Your task to perform on an android device: add a contact Image 0: 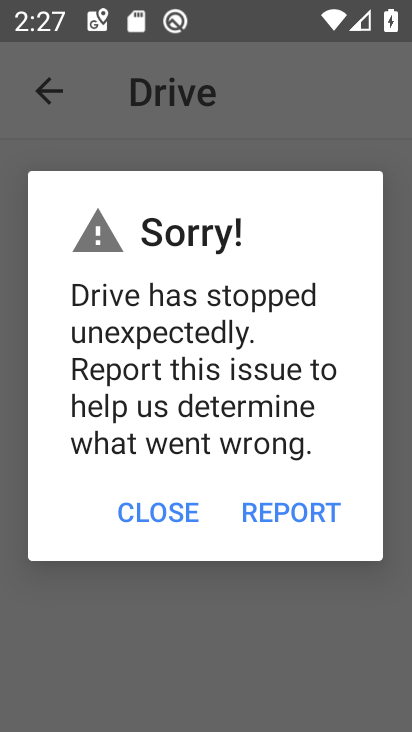
Step 0: press home button
Your task to perform on an android device: add a contact Image 1: 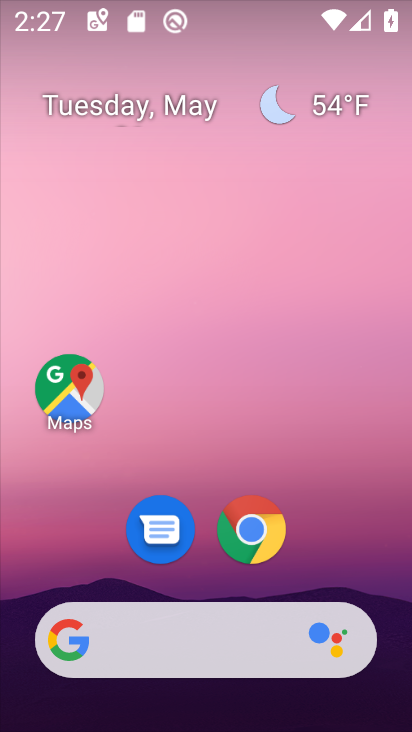
Step 1: drag from (308, 590) to (276, 110)
Your task to perform on an android device: add a contact Image 2: 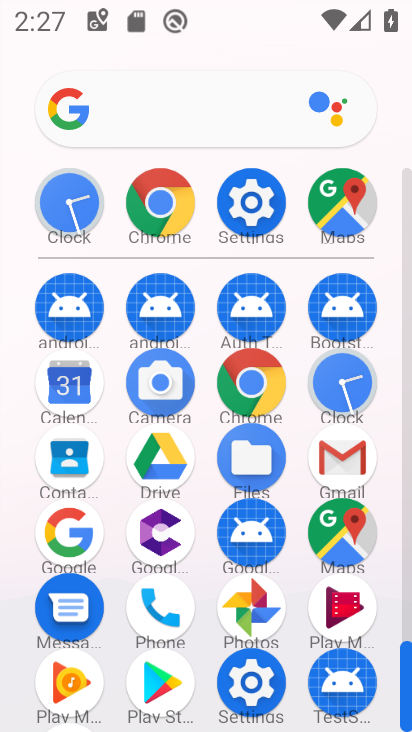
Step 2: click (152, 602)
Your task to perform on an android device: add a contact Image 3: 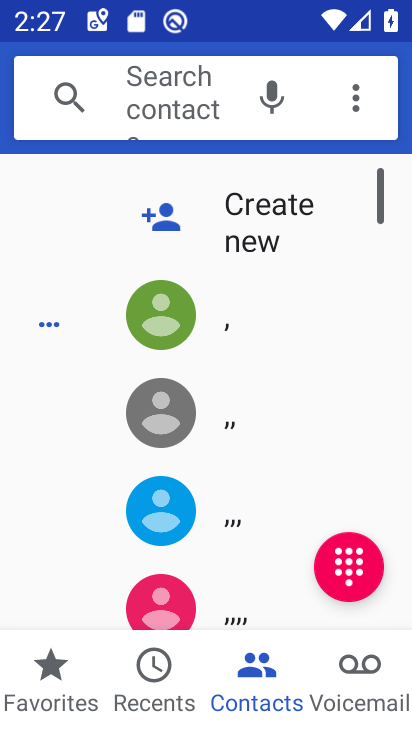
Step 3: click (187, 224)
Your task to perform on an android device: add a contact Image 4: 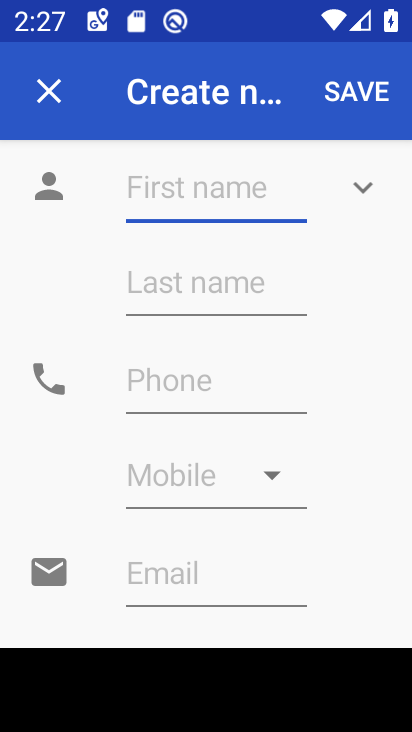
Step 4: click (195, 188)
Your task to perform on an android device: add a contact Image 5: 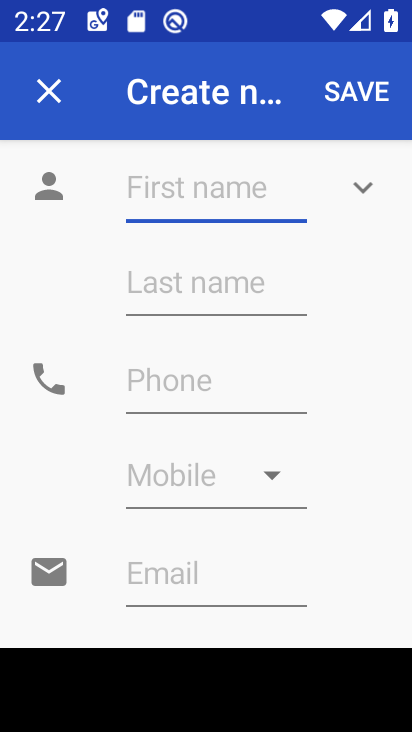
Step 5: type "fdfdffdffdfdfdfdfd"
Your task to perform on an android device: add a contact Image 6: 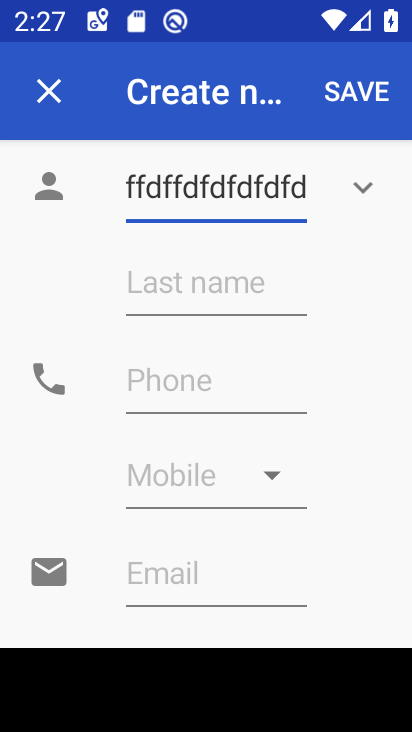
Step 6: click (165, 386)
Your task to perform on an android device: add a contact Image 7: 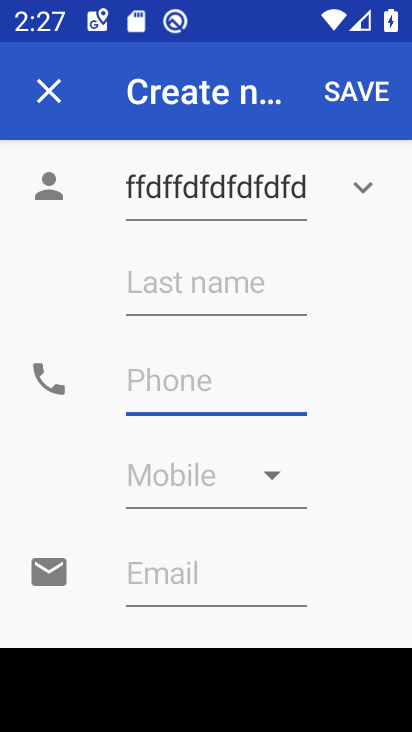
Step 7: type "5454454545445455454"
Your task to perform on an android device: add a contact Image 8: 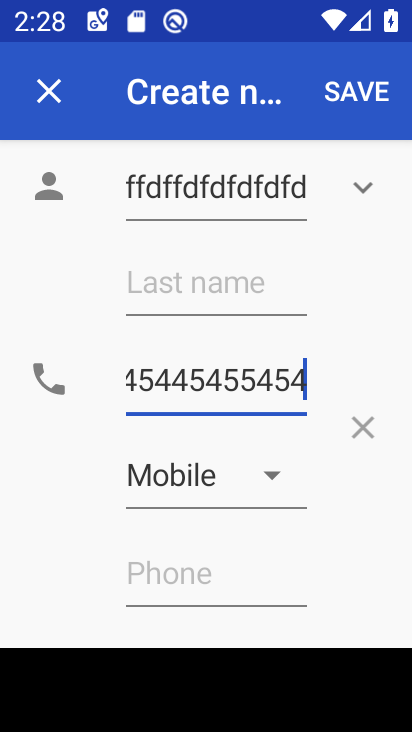
Step 8: click (359, 98)
Your task to perform on an android device: add a contact Image 9: 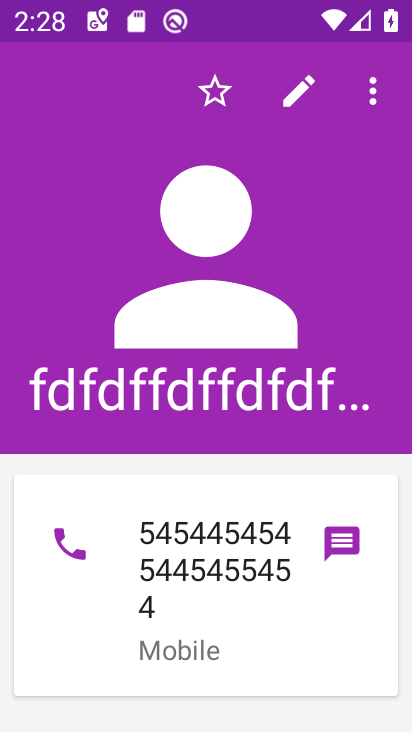
Step 9: task complete